Your task to perform on an android device: Open Maps and search for coffee Image 0: 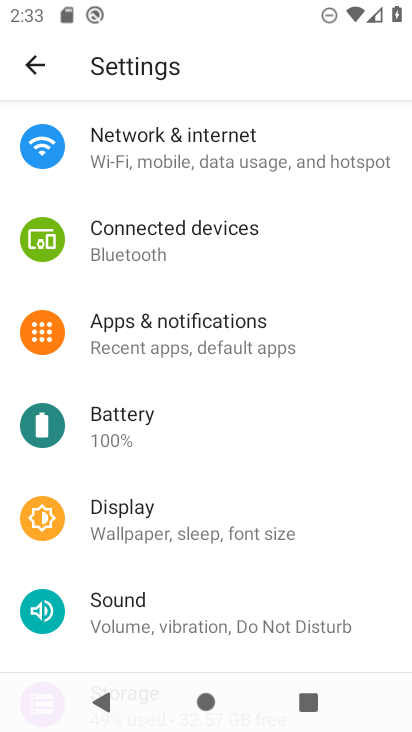
Step 0: press home button
Your task to perform on an android device: Open Maps and search for coffee Image 1: 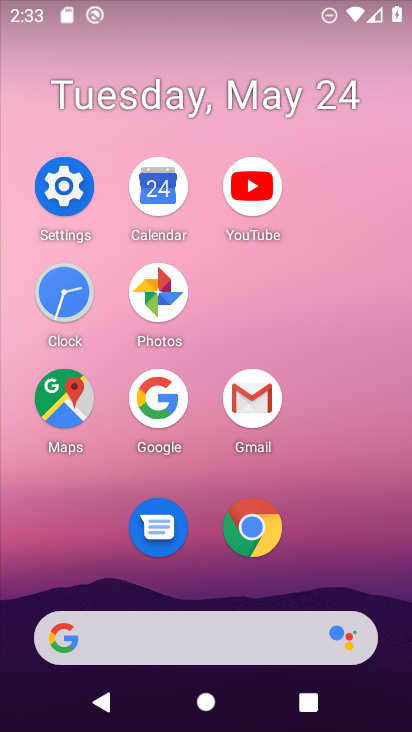
Step 1: click (82, 384)
Your task to perform on an android device: Open Maps and search for coffee Image 2: 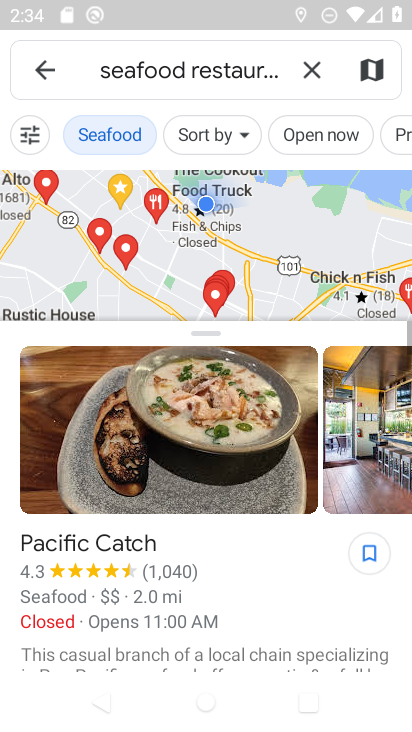
Step 2: click (308, 71)
Your task to perform on an android device: Open Maps and search for coffee Image 3: 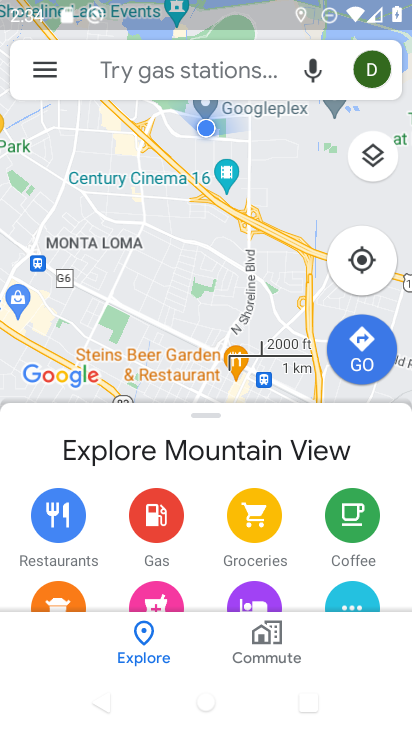
Step 3: click (149, 79)
Your task to perform on an android device: Open Maps and search for coffee Image 4: 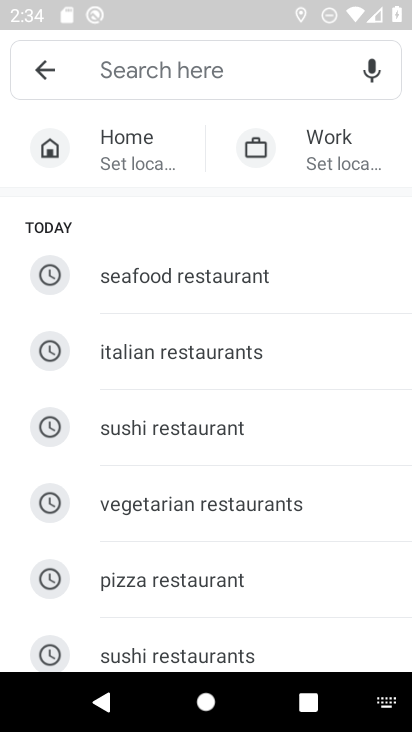
Step 4: type "coffee"
Your task to perform on an android device: Open Maps and search for coffee Image 5: 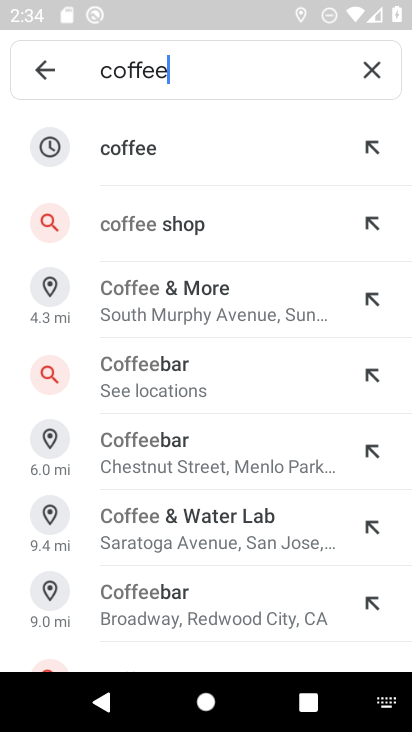
Step 5: task complete